Your task to perform on an android device: When is my next meeting? Image 0: 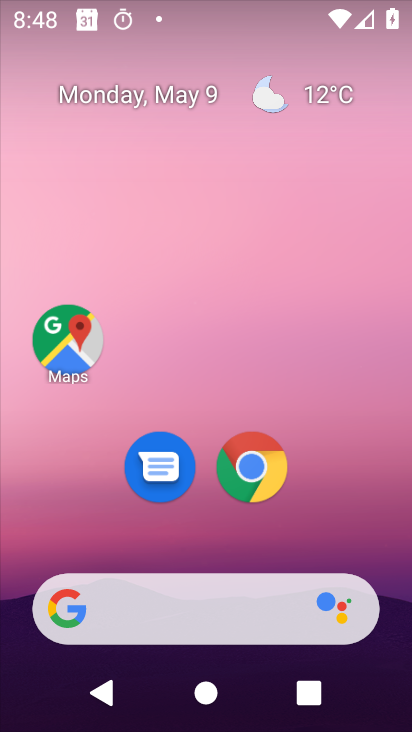
Step 0: drag from (375, 543) to (350, 12)
Your task to perform on an android device: When is my next meeting? Image 1: 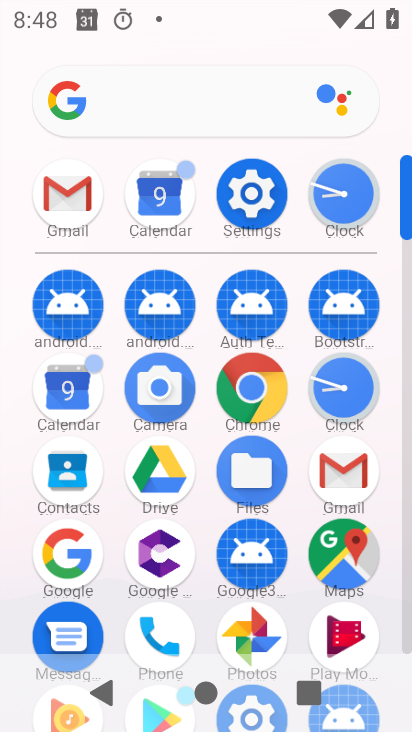
Step 1: click (152, 202)
Your task to perform on an android device: When is my next meeting? Image 2: 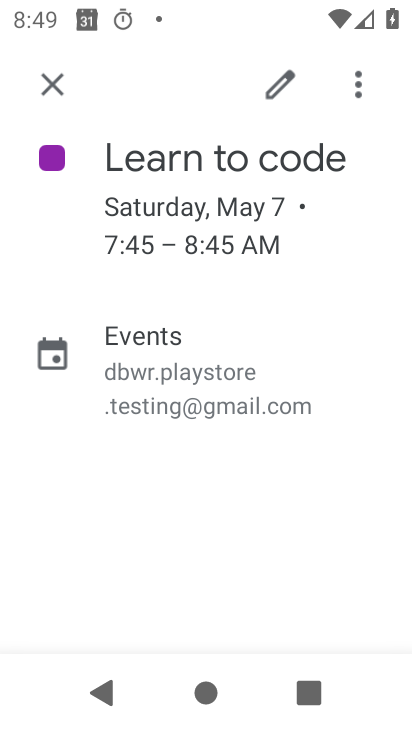
Step 2: click (42, 90)
Your task to perform on an android device: When is my next meeting? Image 3: 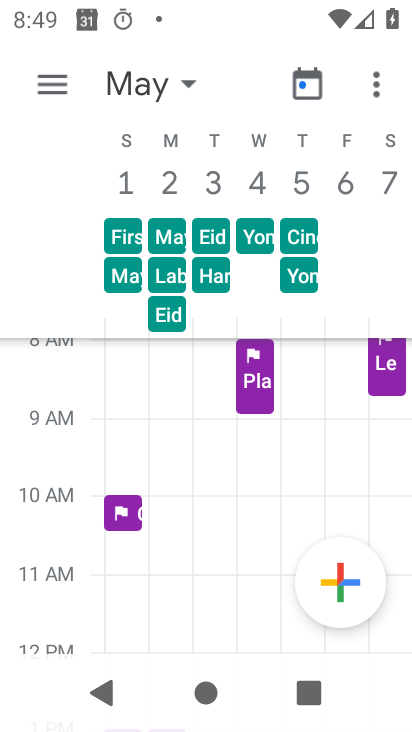
Step 3: click (54, 88)
Your task to perform on an android device: When is my next meeting? Image 4: 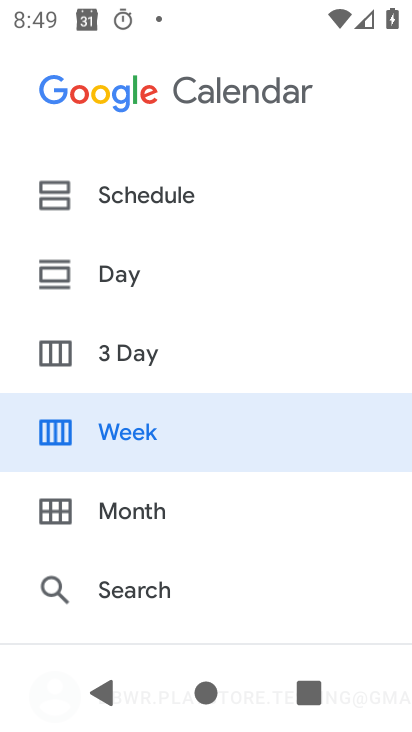
Step 4: click (94, 194)
Your task to perform on an android device: When is my next meeting? Image 5: 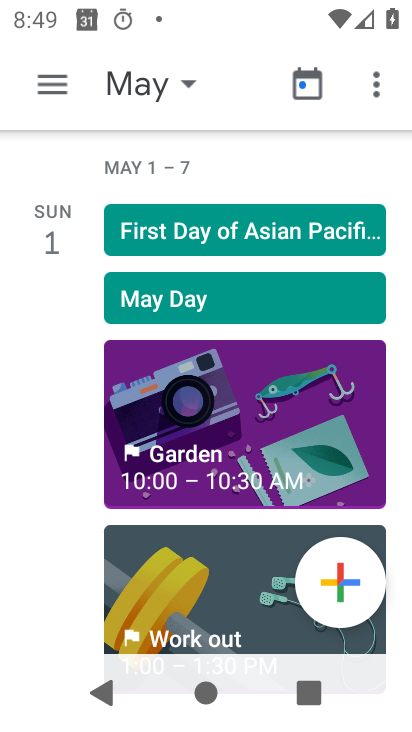
Step 5: click (188, 85)
Your task to perform on an android device: When is my next meeting? Image 6: 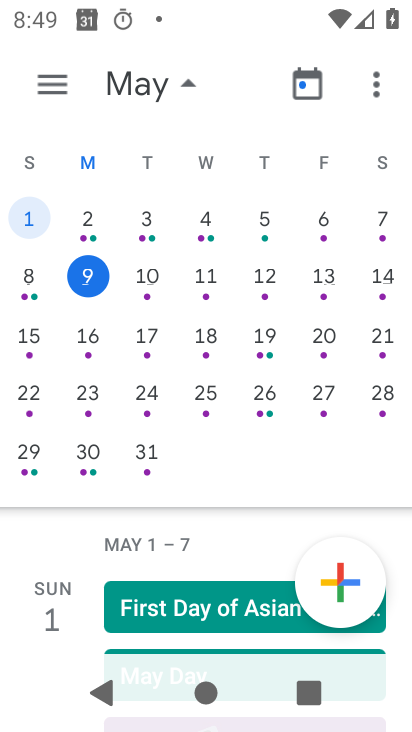
Step 6: click (90, 283)
Your task to perform on an android device: When is my next meeting? Image 7: 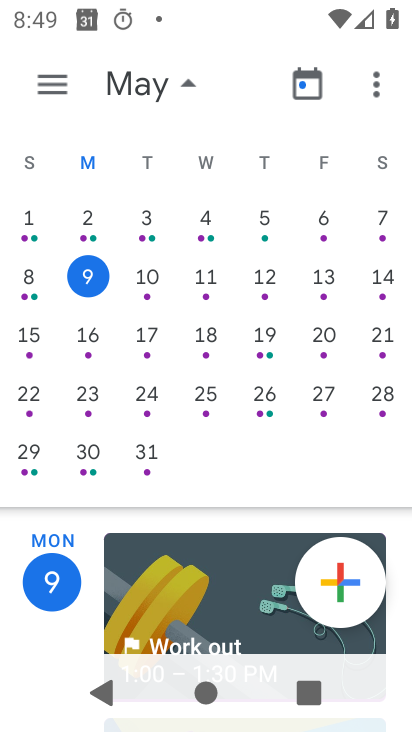
Step 7: drag from (161, 547) to (149, 244)
Your task to perform on an android device: When is my next meeting? Image 8: 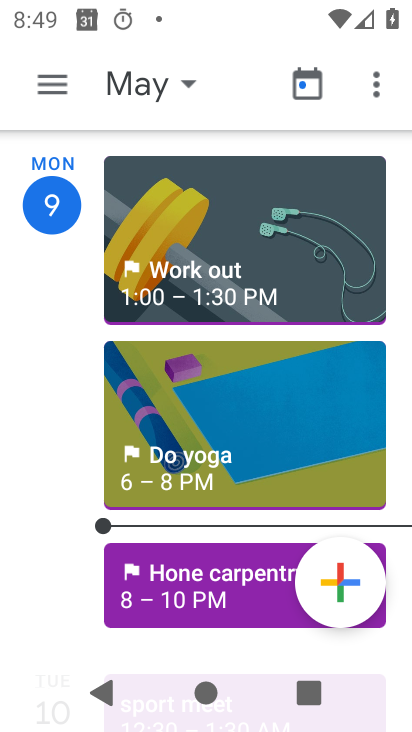
Step 8: drag from (170, 464) to (173, 282)
Your task to perform on an android device: When is my next meeting? Image 9: 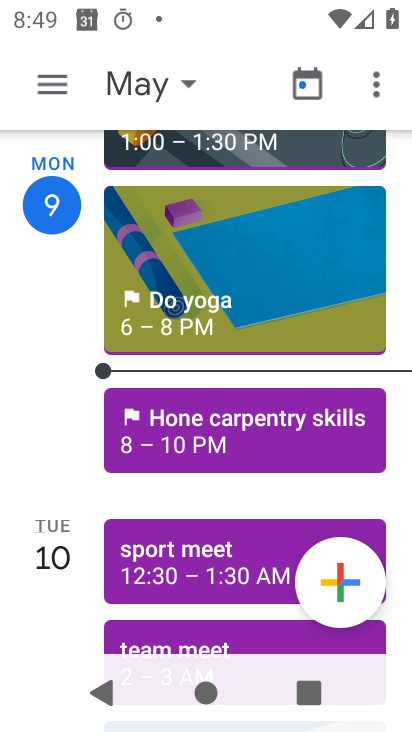
Step 9: click (173, 565)
Your task to perform on an android device: When is my next meeting? Image 10: 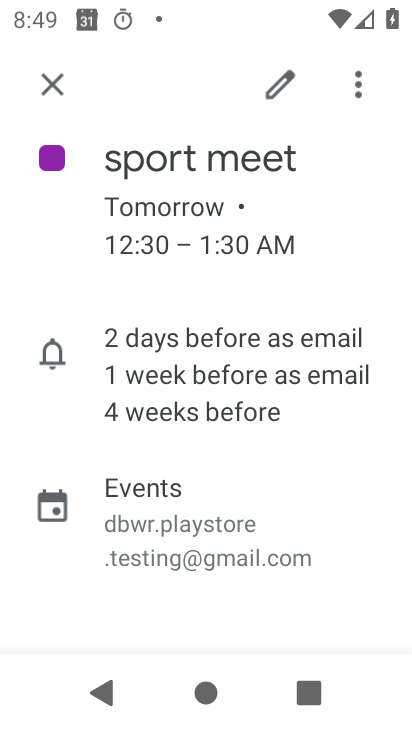
Step 10: task complete